Your task to perform on an android device: toggle priority inbox in the gmail app Image 0: 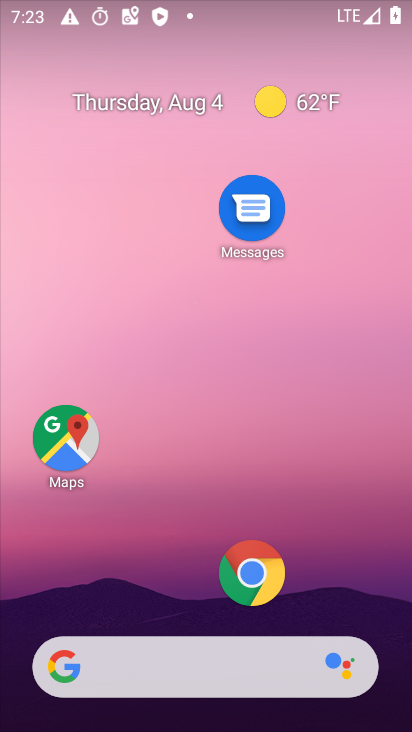
Step 0: press home button
Your task to perform on an android device: toggle priority inbox in the gmail app Image 1: 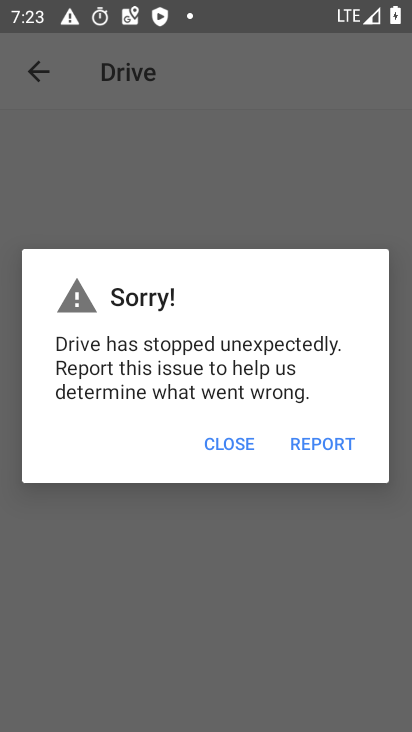
Step 1: click (165, 244)
Your task to perform on an android device: toggle priority inbox in the gmail app Image 2: 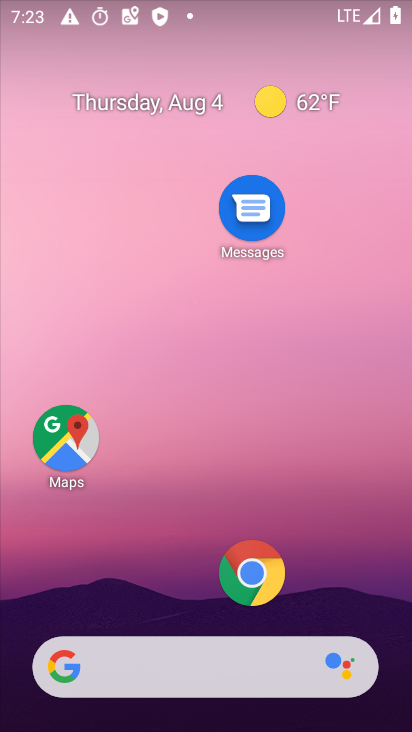
Step 2: drag from (183, 627) to (184, 259)
Your task to perform on an android device: toggle priority inbox in the gmail app Image 3: 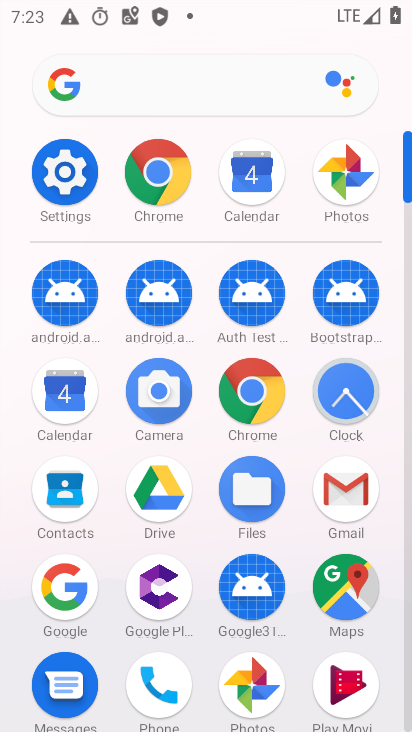
Step 3: click (341, 489)
Your task to perform on an android device: toggle priority inbox in the gmail app Image 4: 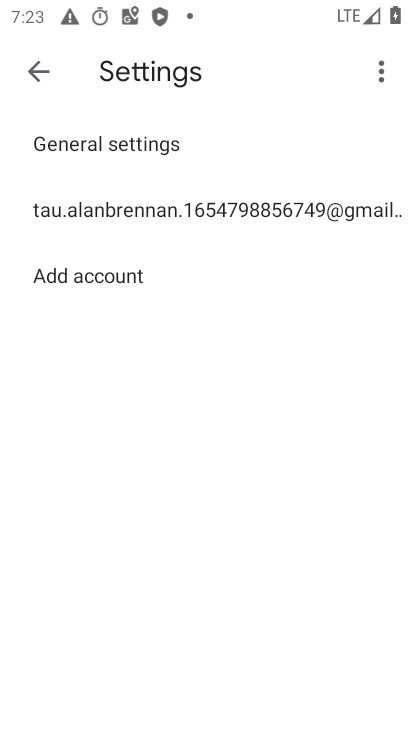
Step 4: click (174, 212)
Your task to perform on an android device: toggle priority inbox in the gmail app Image 5: 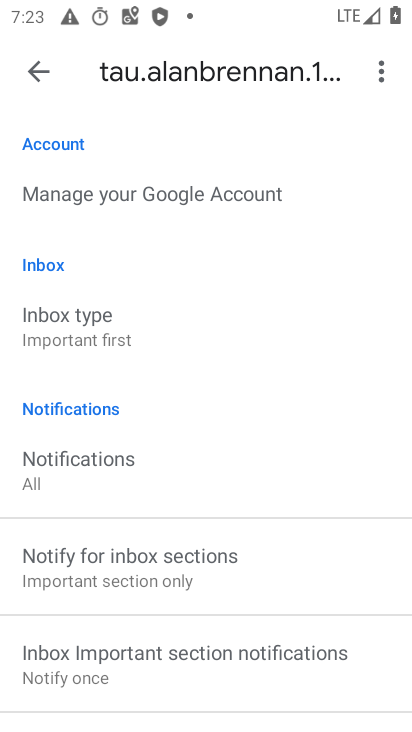
Step 5: click (95, 332)
Your task to perform on an android device: toggle priority inbox in the gmail app Image 6: 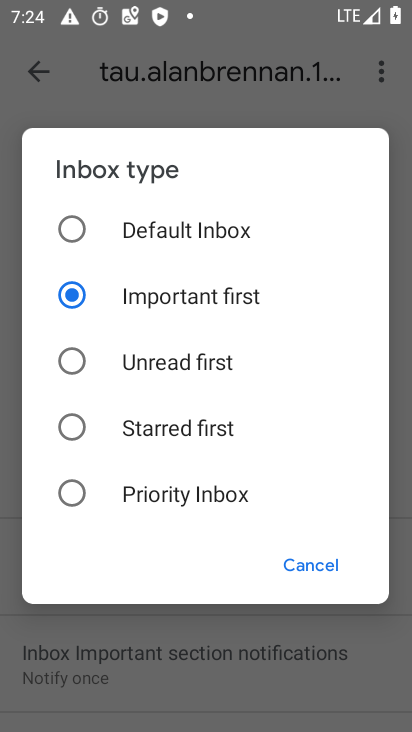
Step 6: click (76, 492)
Your task to perform on an android device: toggle priority inbox in the gmail app Image 7: 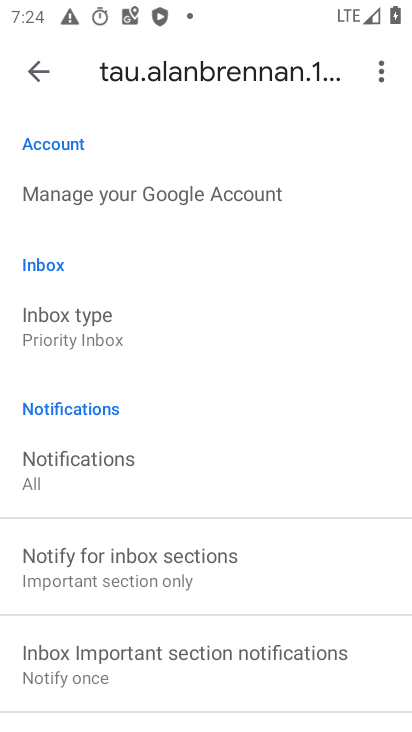
Step 7: task complete